Your task to perform on an android device: turn smart compose on in the gmail app Image 0: 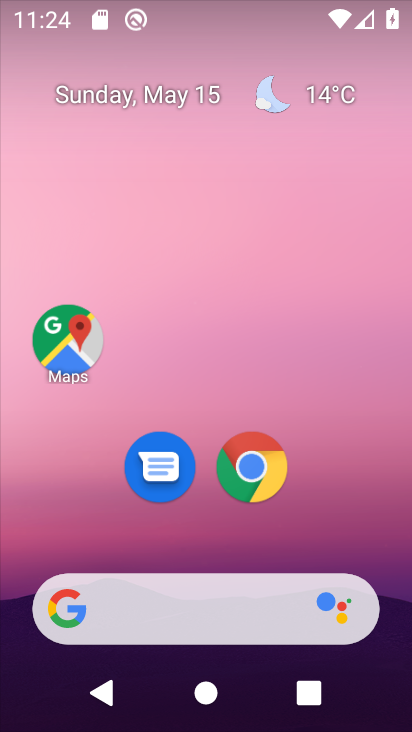
Step 0: drag from (206, 542) to (223, 116)
Your task to perform on an android device: turn smart compose on in the gmail app Image 1: 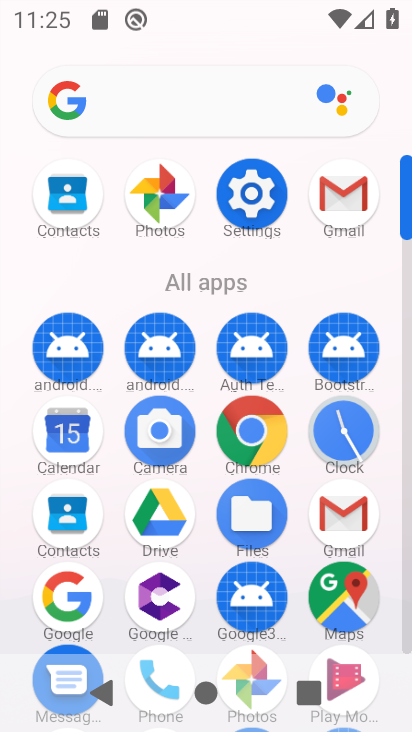
Step 1: click (338, 508)
Your task to perform on an android device: turn smart compose on in the gmail app Image 2: 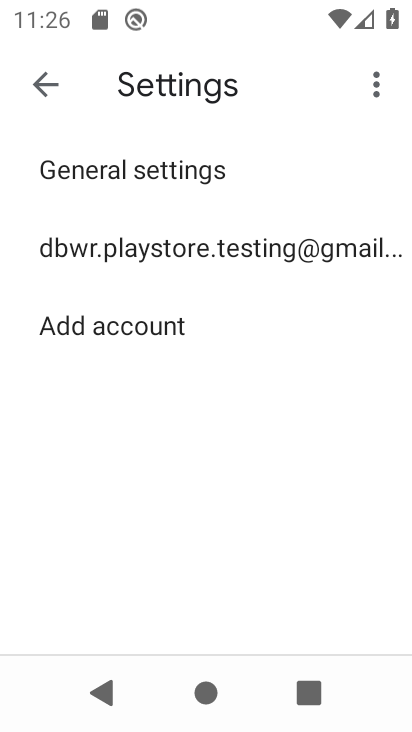
Step 2: click (201, 244)
Your task to perform on an android device: turn smart compose on in the gmail app Image 3: 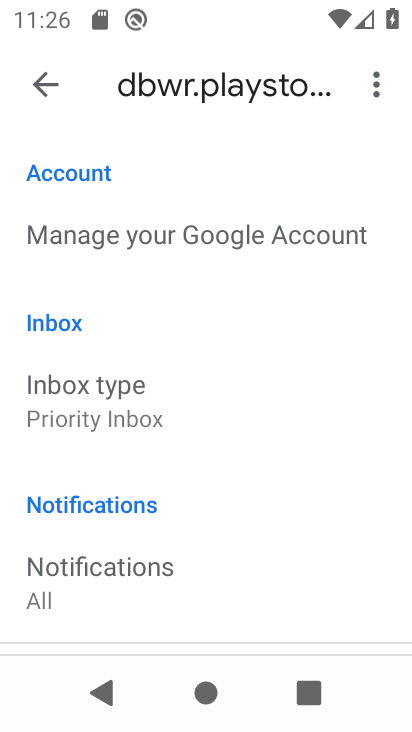
Step 3: task complete